Your task to perform on an android device: turn on location history Image 0: 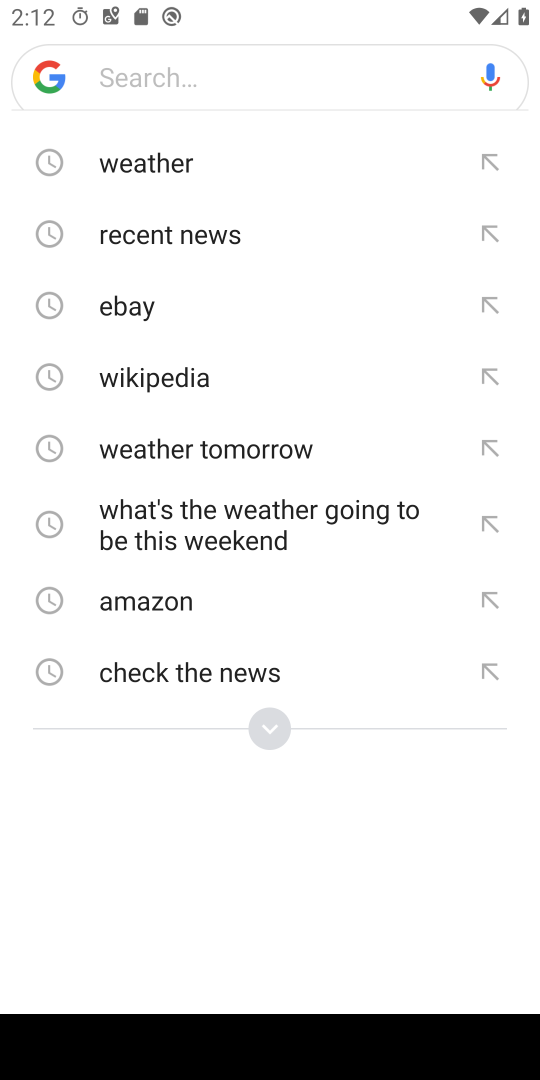
Step 0: press back button
Your task to perform on an android device: turn on location history Image 1: 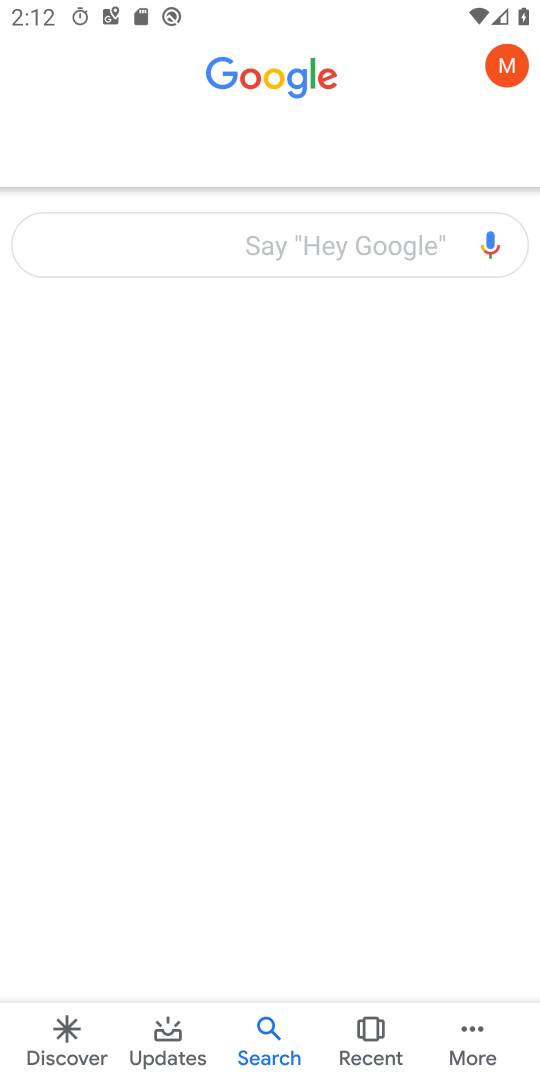
Step 1: press home button
Your task to perform on an android device: turn on location history Image 2: 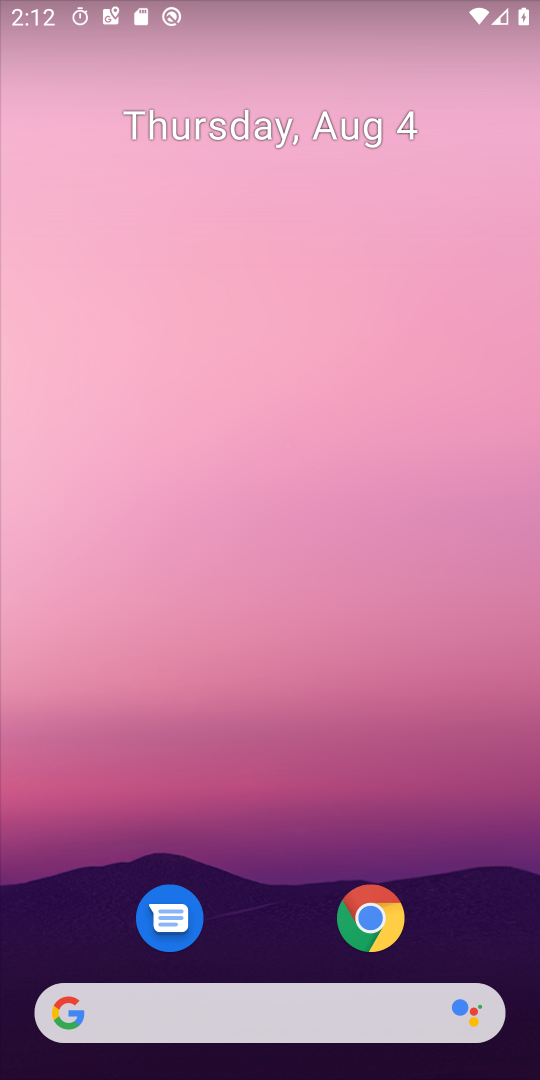
Step 2: drag from (246, 913) to (290, 324)
Your task to perform on an android device: turn on location history Image 3: 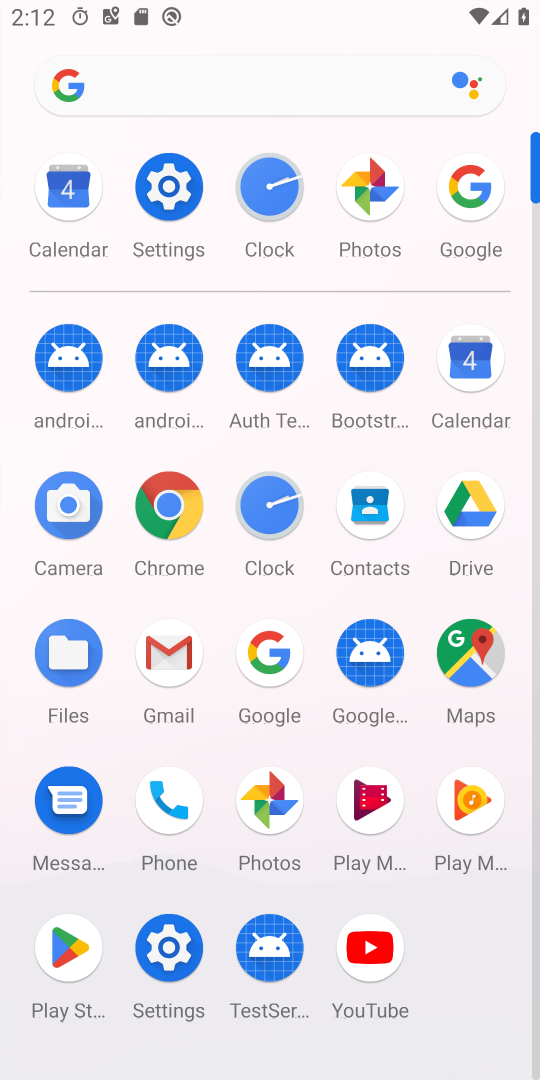
Step 3: click (145, 192)
Your task to perform on an android device: turn on location history Image 4: 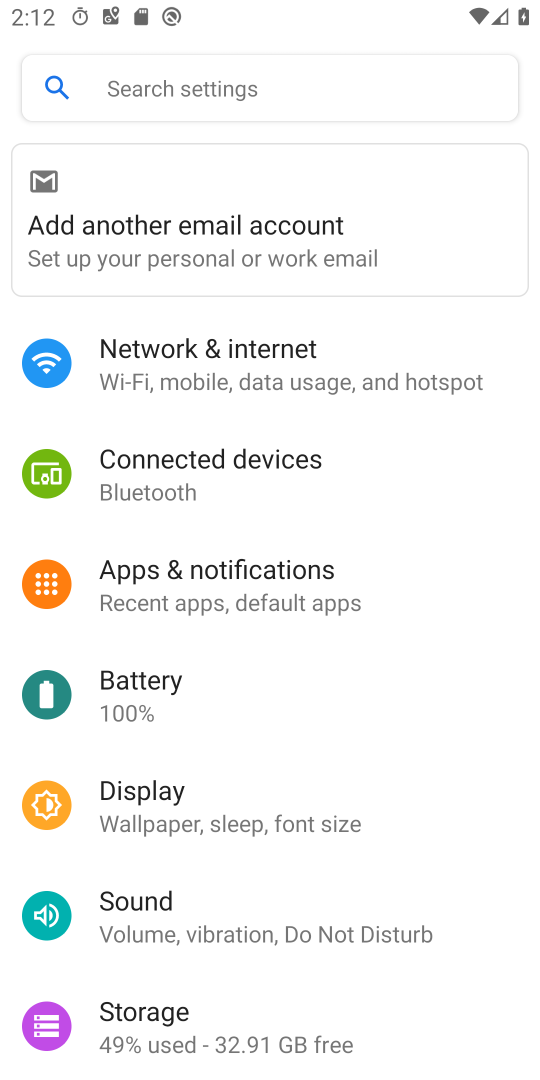
Step 4: drag from (237, 805) to (237, 479)
Your task to perform on an android device: turn on location history Image 5: 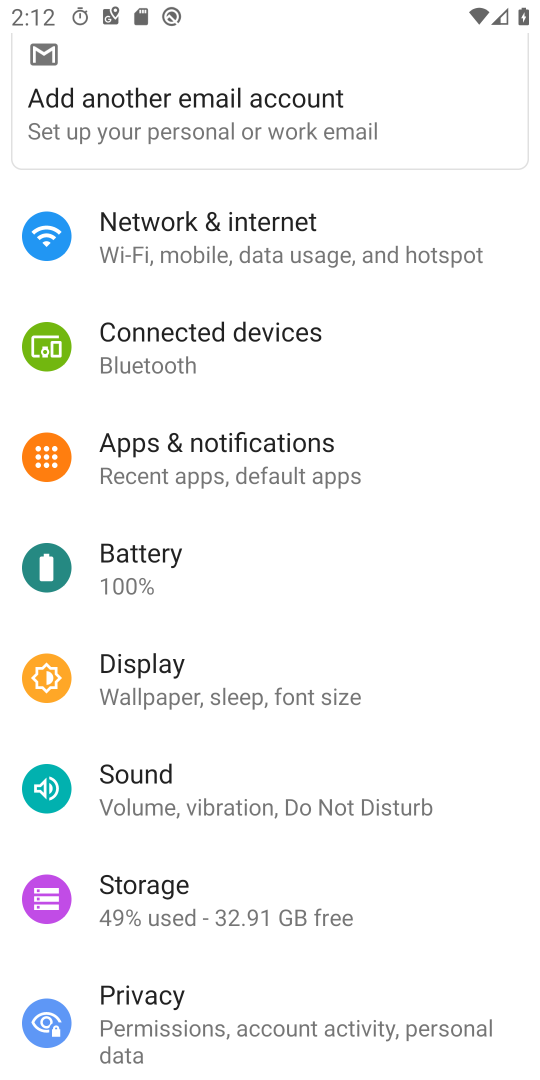
Step 5: drag from (215, 991) to (215, 538)
Your task to perform on an android device: turn on location history Image 6: 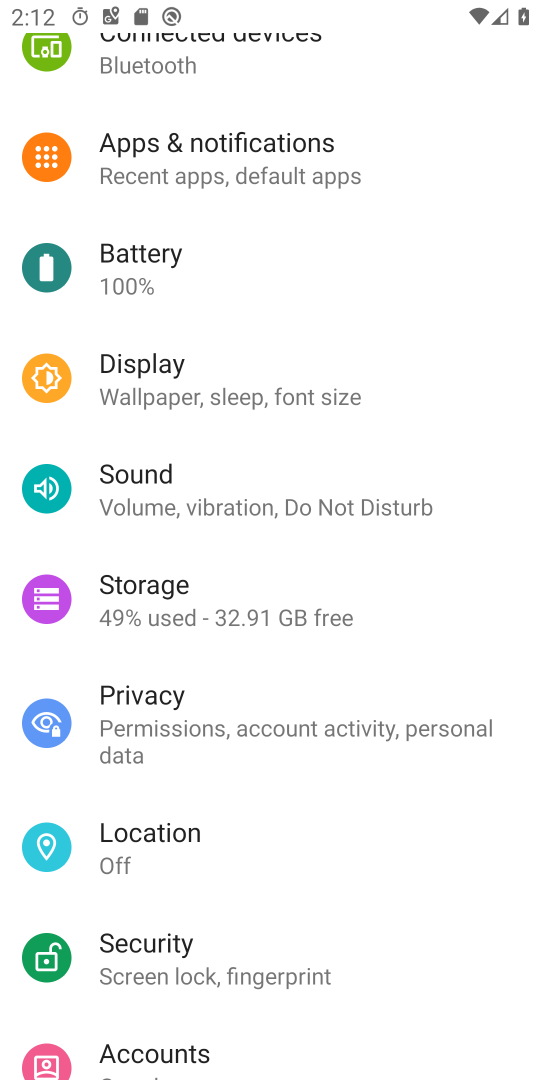
Step 6: click (193, 851)
Your task to perform on an android device: turn on location history Image 7: 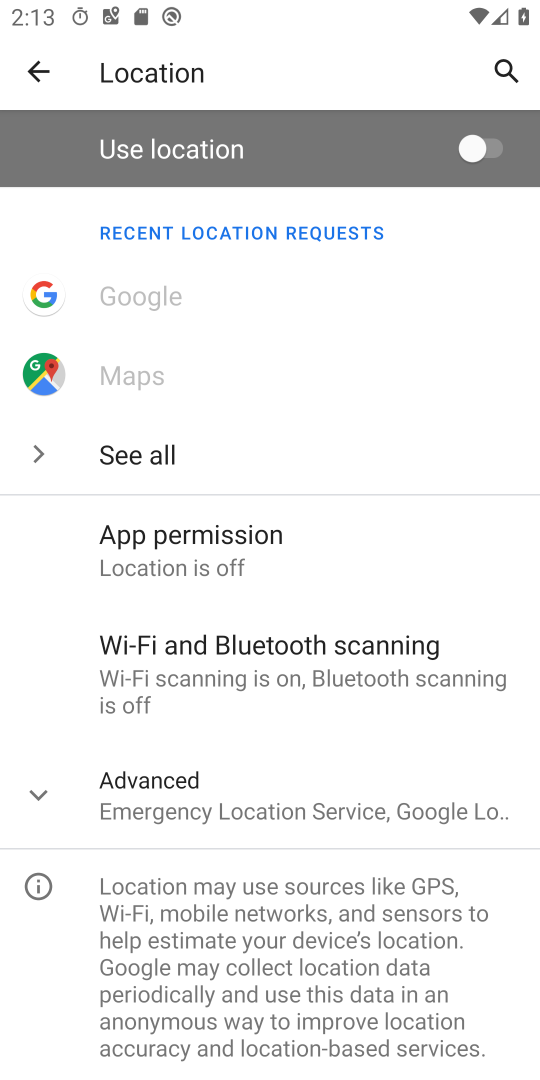
Step 7: click (260, 823)
Your task to perform on an android device: turn on location history Image 8: 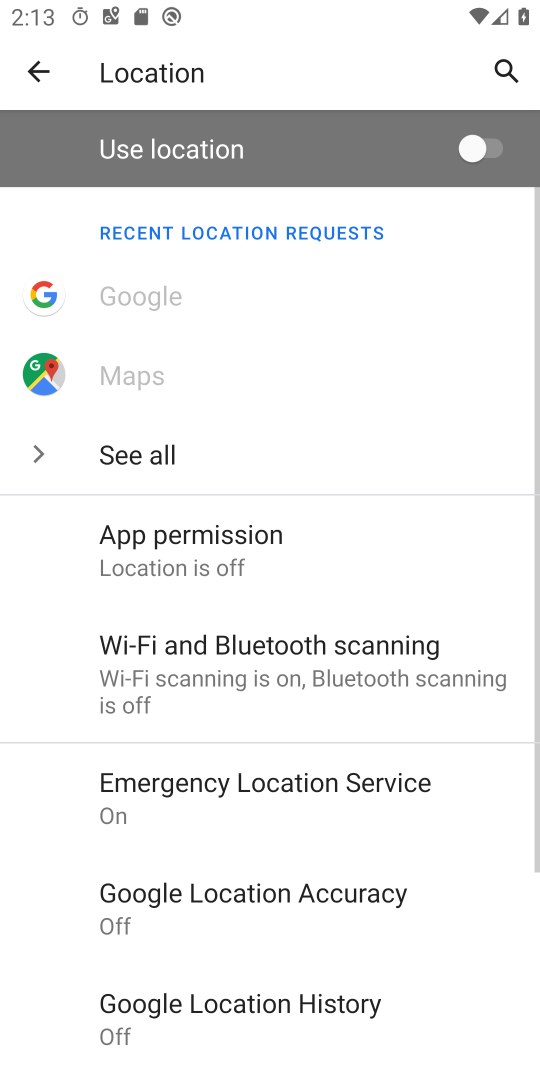
Step 8: drag from (322, 960) to (337, 479)
Your task to perform on an android device: turn on location history Image 9: 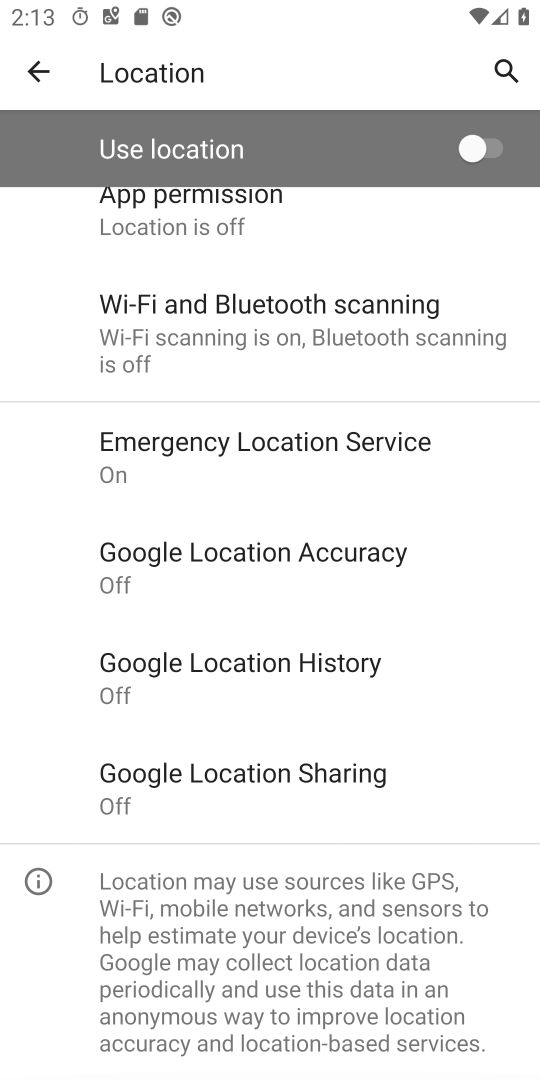
Step 9: click (344, 630)
Your task to perform on an android device: turn on location history Image 10: 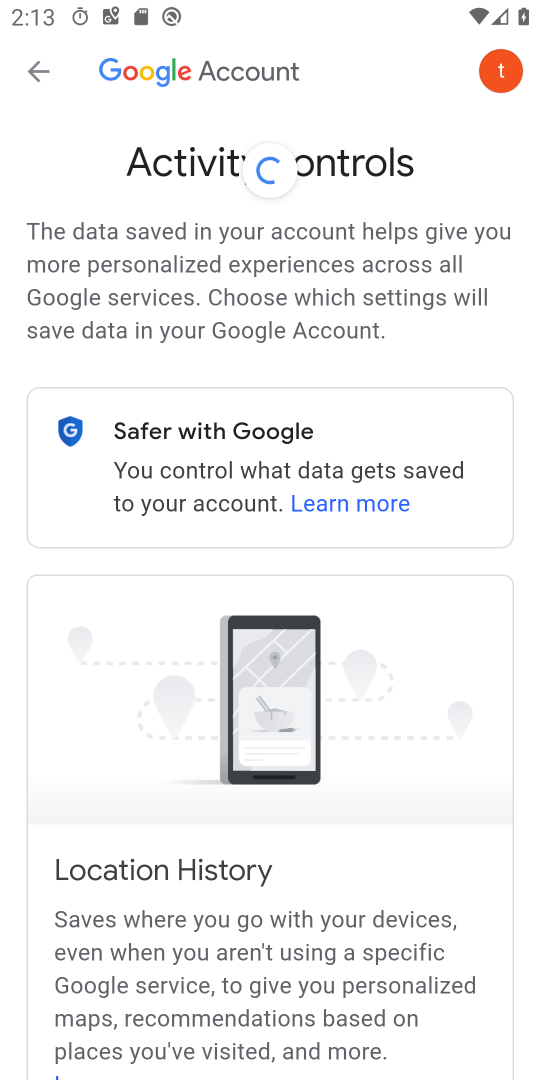
Step 10: drag from (411, 782) to (408, 316)
Your task to perform on an android device: turn on location history Image 11: 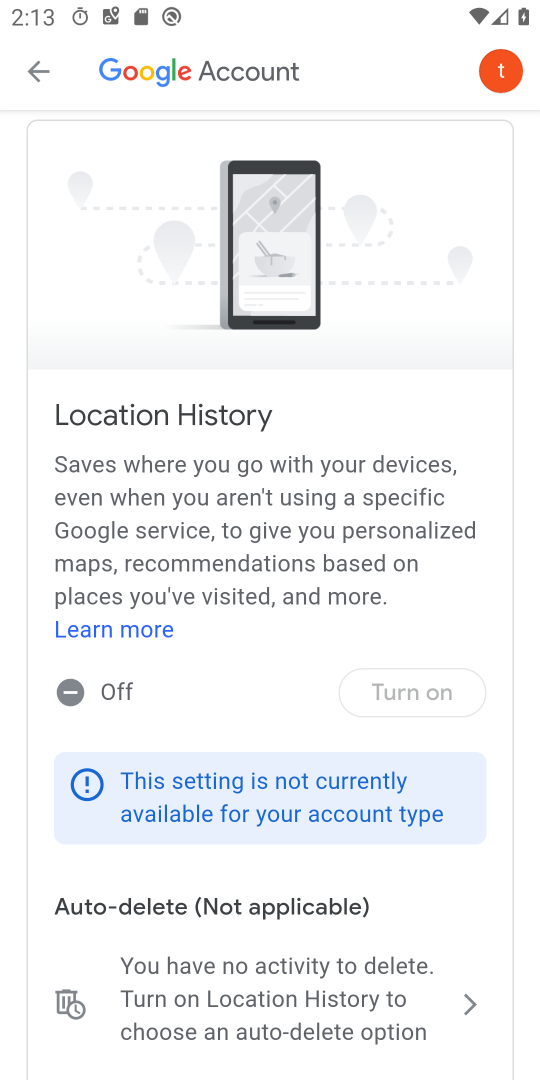
Step 11: click (424, 692)
Your task to perform on an android device: turn on location history Image 12: 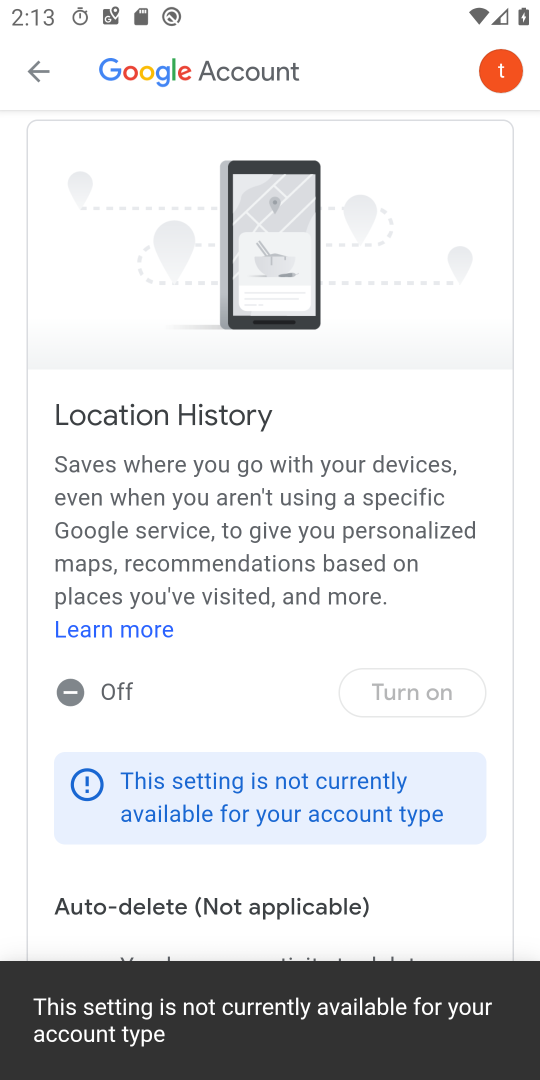
Step 12: task complete